Your task to perform on an android device: Go to Maps Image 0: 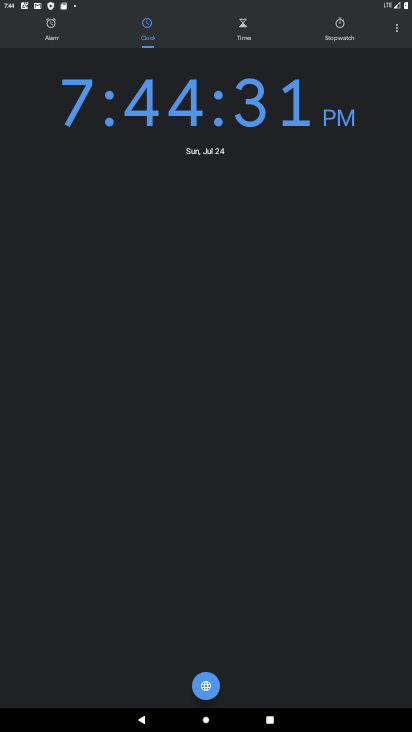
Step 0: press home button
Your task to perform on an android device: Go to Maps Image 1: 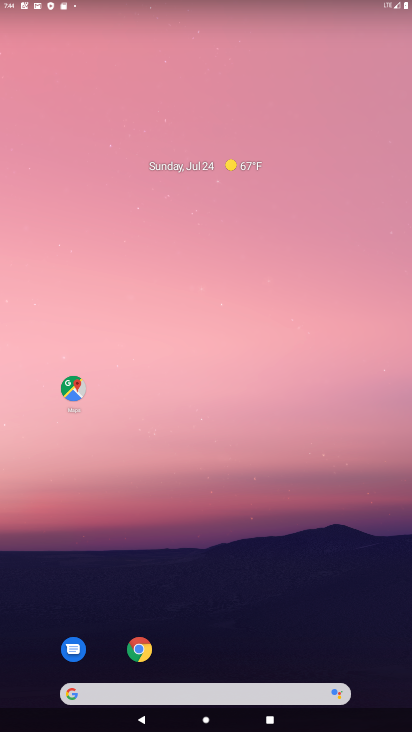
Step 1: click (81, 386)
Your task to perform on an android device: Go to Maps Image 2: 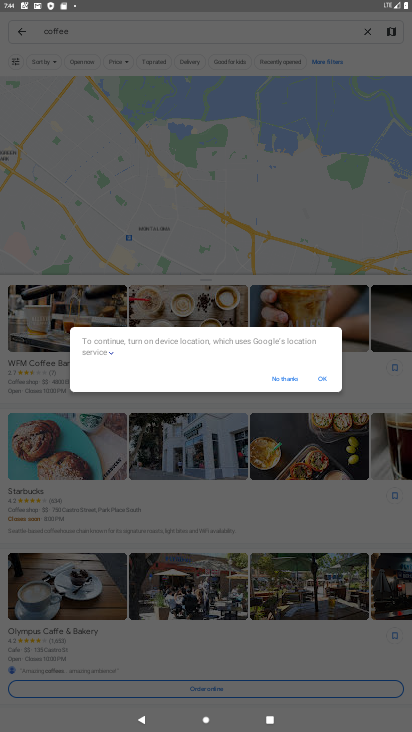
Step 2: task complete